Your task to perform on an android device: See recent photos Image 0: 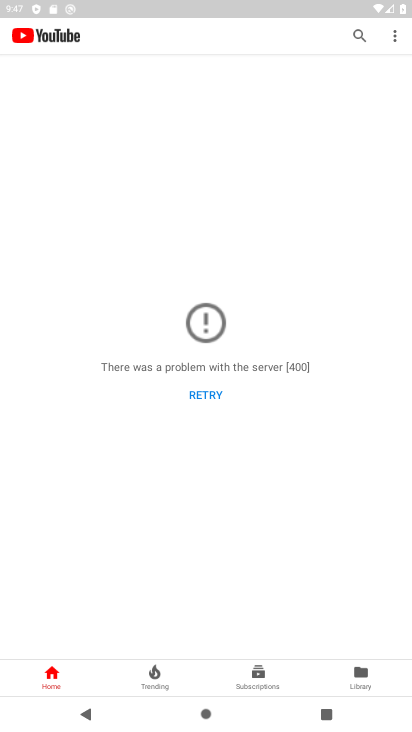
Step 0: press back button
Your task to perform on an android device: See recent photos Image 1: 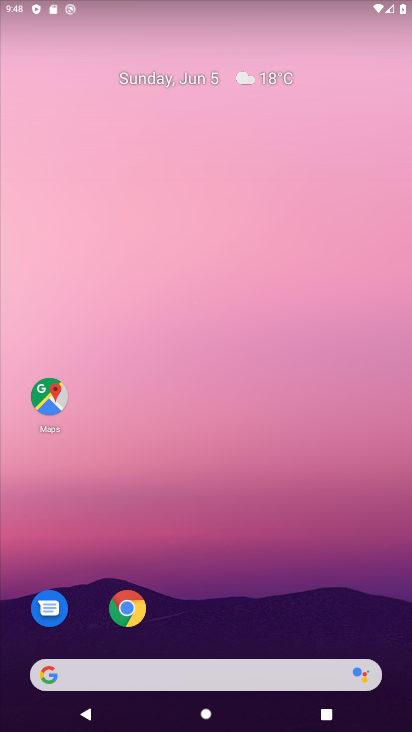
Step 1: drag from (181, 662) to (113, 10)
Your task to perform on an android device: See recent photos Image 2: 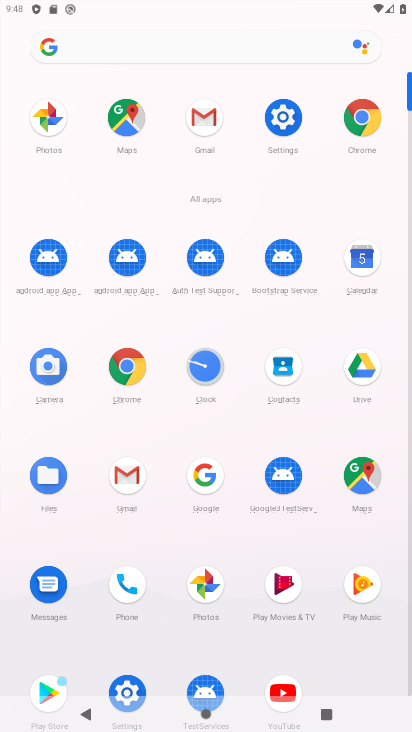
Step 2: click (186, 506)
Your task to perform on an android device: See recent photos Image 3: 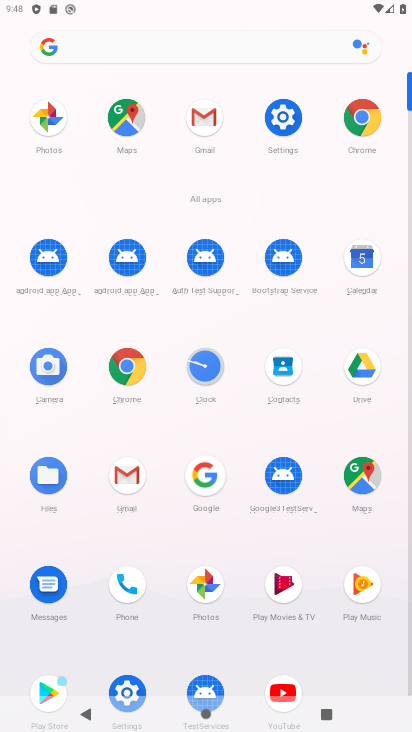
Step 3: click (209, 576)
Your task to perform on an android device: See recent photos Image 4: 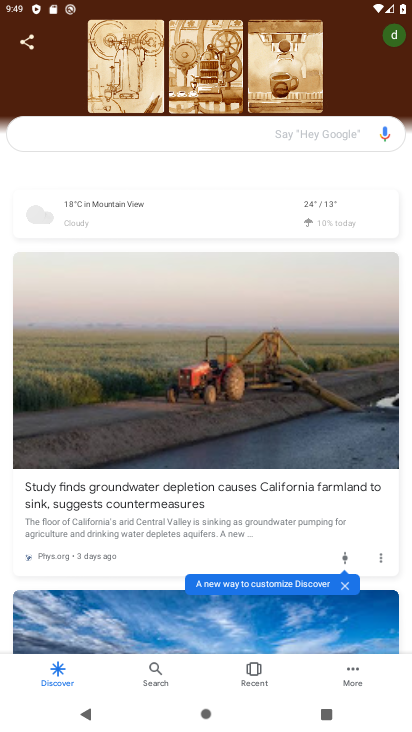
Step 4: press home button
Your task to perform on an android device: See recent photos Image 5: 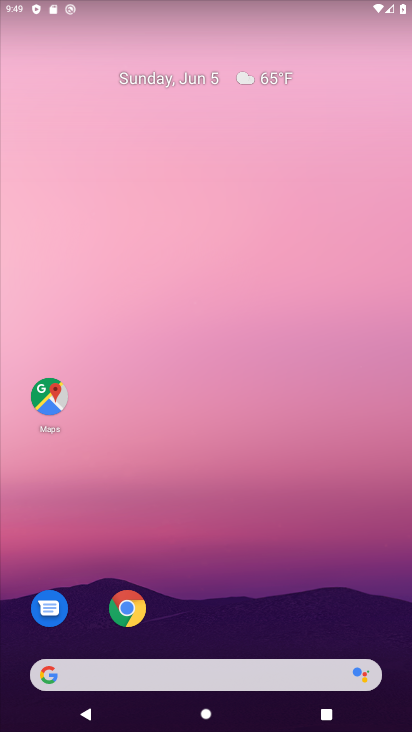
Step 5: drag from (154, 673) to (221, 84)
Your task to perform on an android device: See recent photos Image 6: 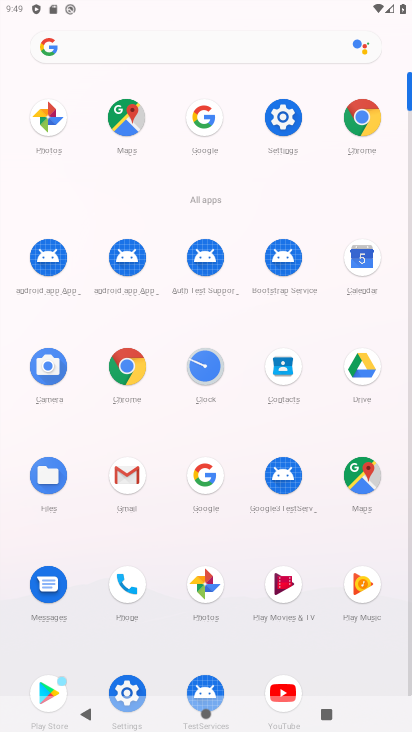
Step 6: click (204, 586)
Your task to perform on an android device: See recent photos Image 7: 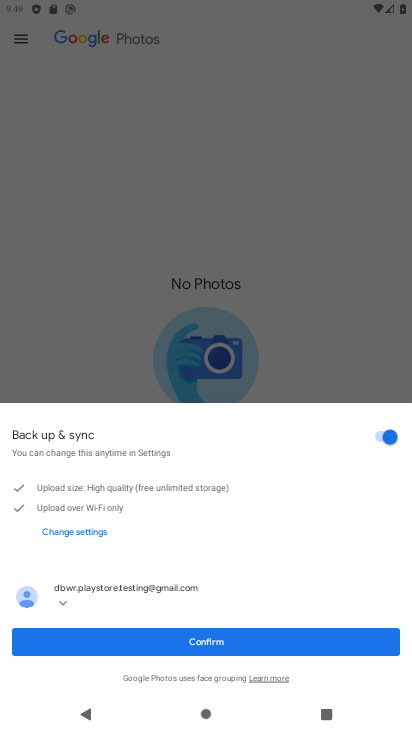
Step 7: click (260, 635)
Your task to perform on an android device: See recent photos Image 8: 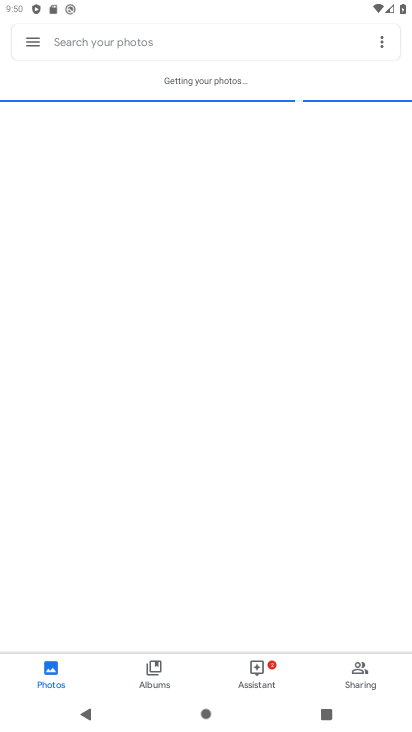
Step 8: task complete